Your task to perform on an android device: install app "Walmart Shopping & Grocery" Image 0: 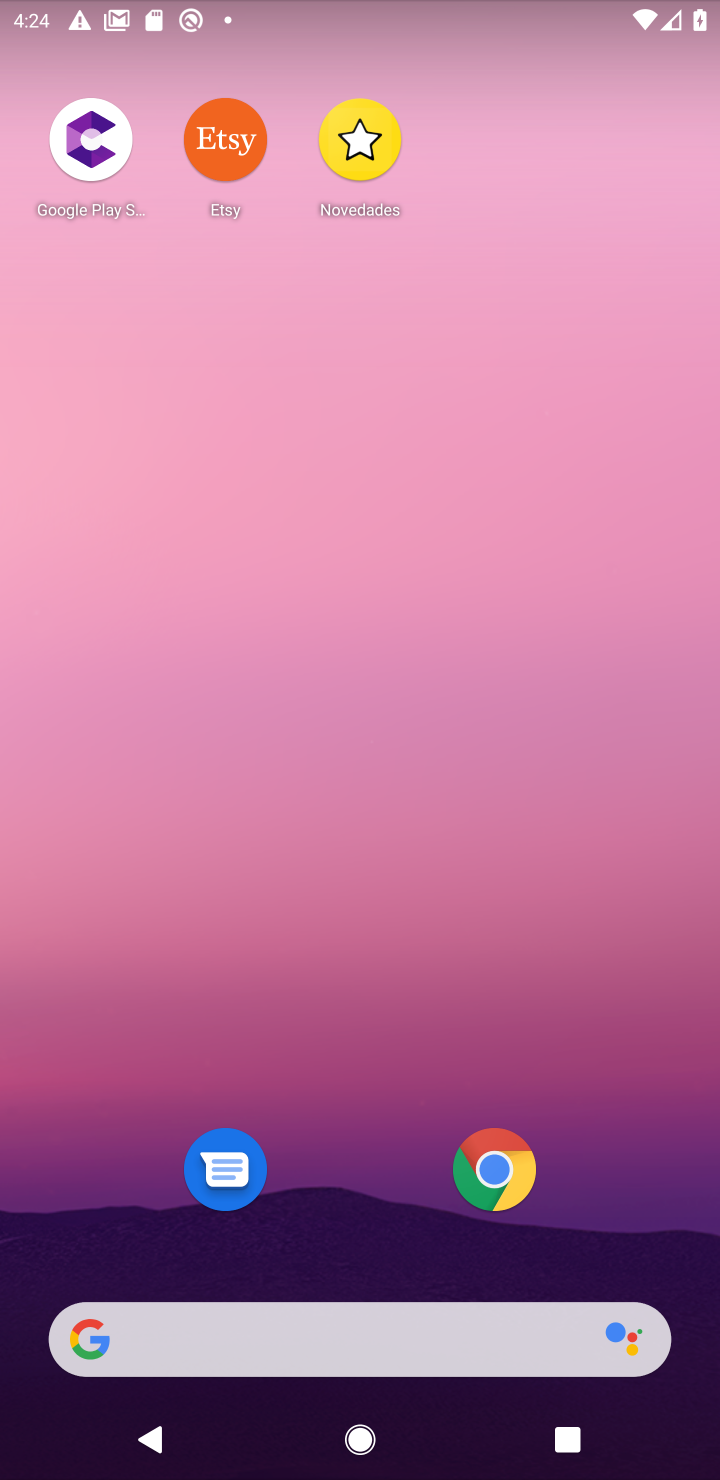
Step 0: press home button
Your task to perform on an android device: install app "Walmart Shopping & Grocery" Image 1: 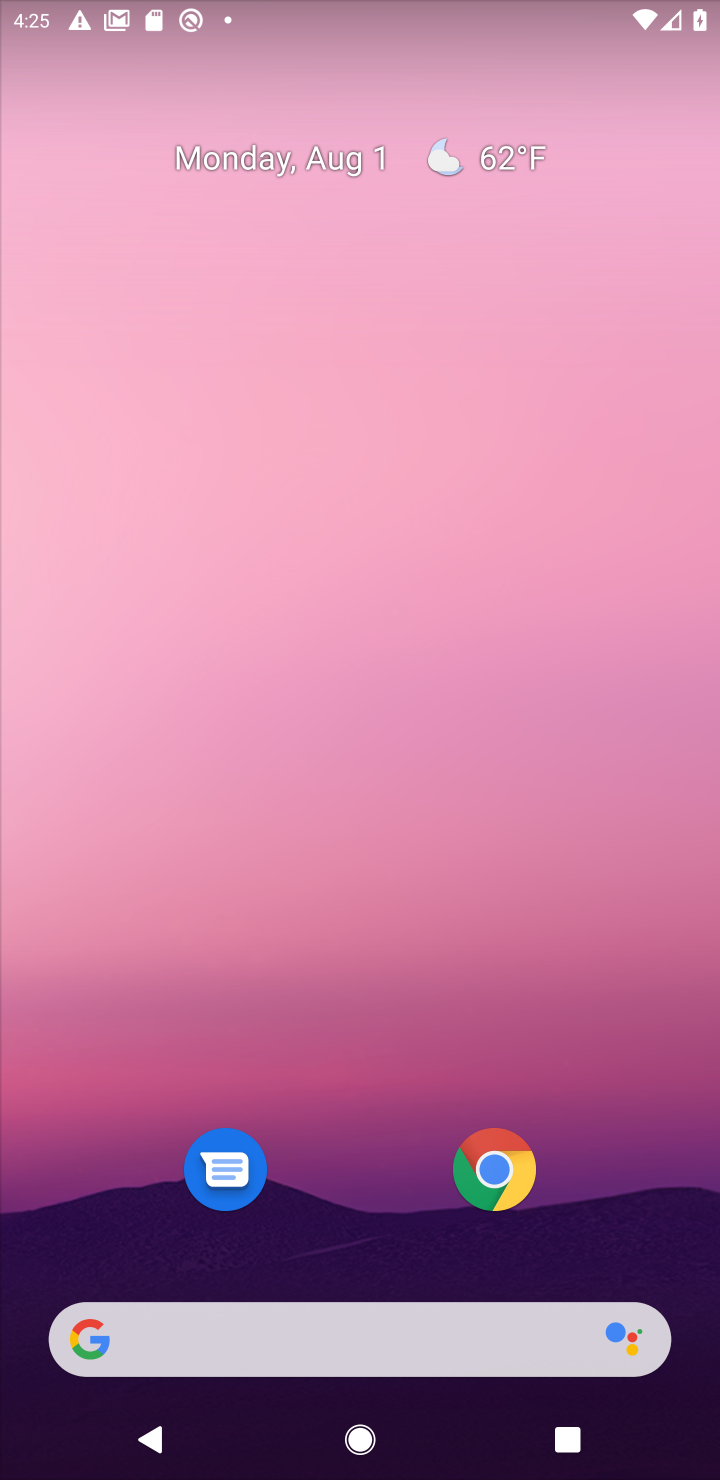
Step 1: drag from (626, 1157) to (409, 8)
Your task to perform on an android device: install app "Walmart Shopping & Grocery" Image 2: 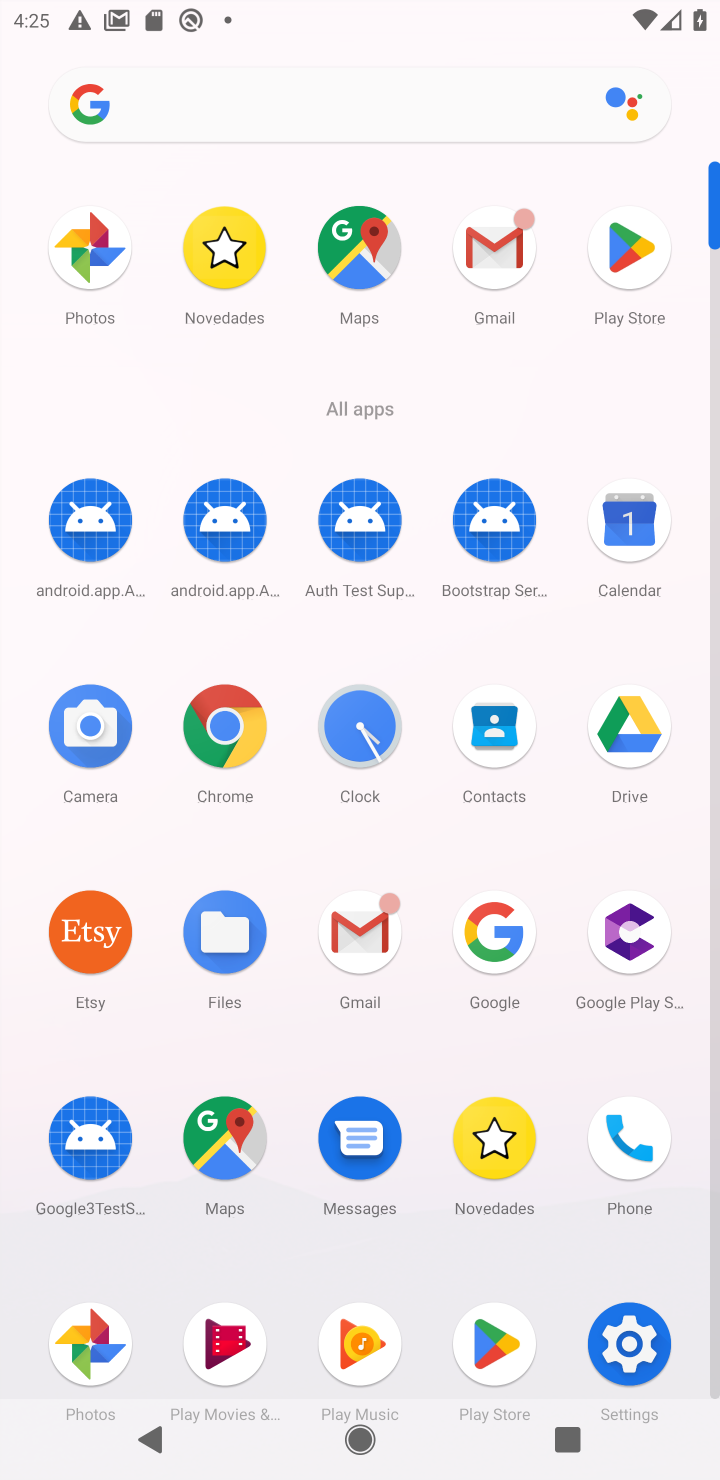
Step 2: click (611, 272)
Your task to perform on an android device: install app "Walmart Shopping & Grocery" Image 3: 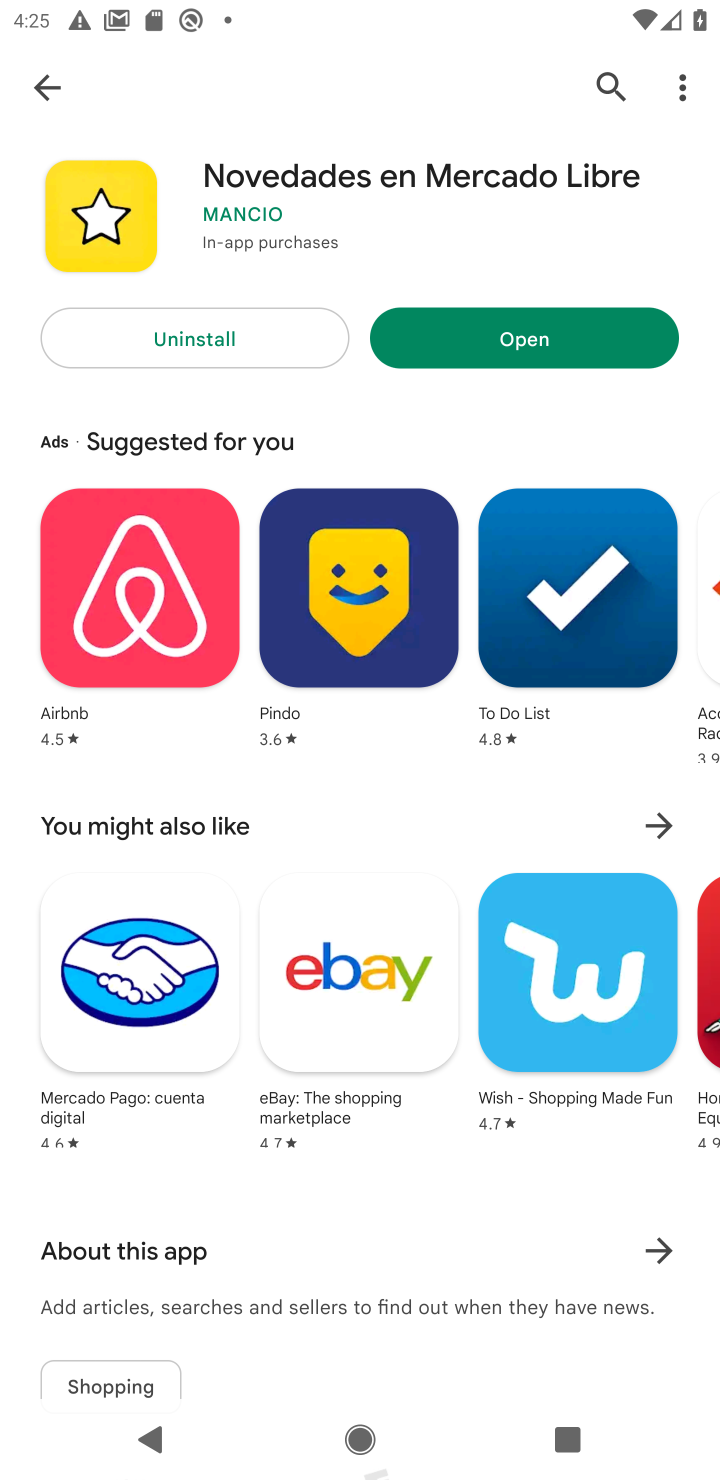
Step 3: click (592, 75)
Your task to perform on an android device: install app "Walmart Shopping & Grocery" Image 4: 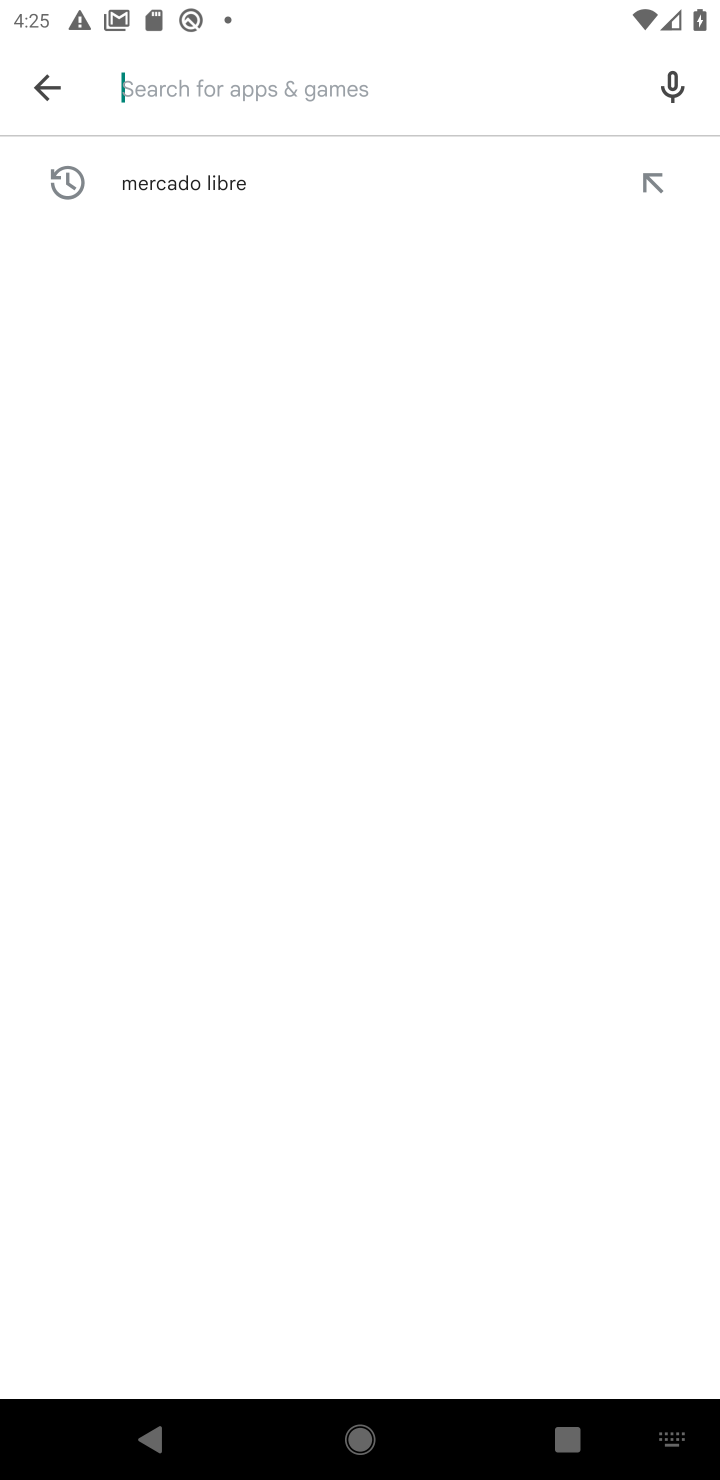
Step 4: type "walmart shopping & grocery"
Your task to perform on an android device: install app "Walmart Shopping & Grocery" Image 5: 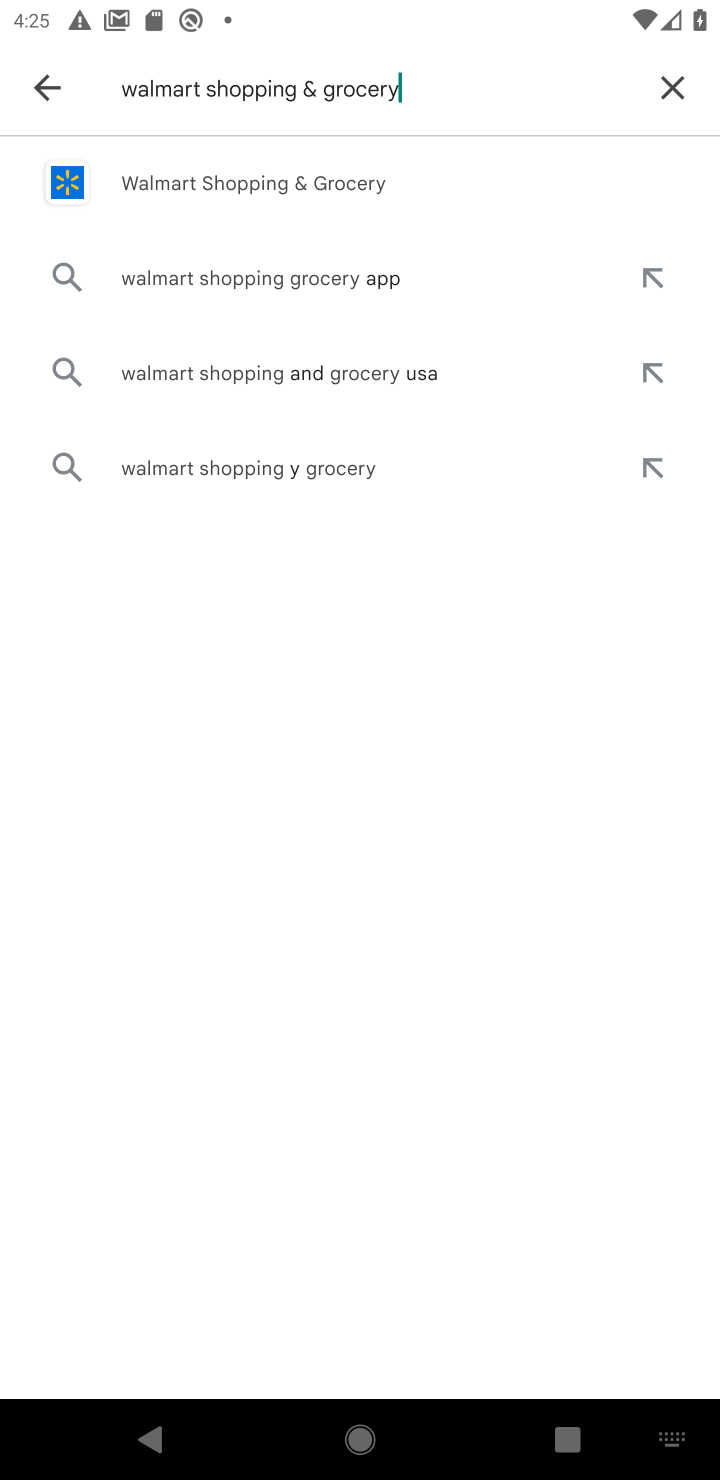
Step 5: click (294, 177)
Your task to perform on an android device: install app "Walmart Shopping & Grocery" Image 6: 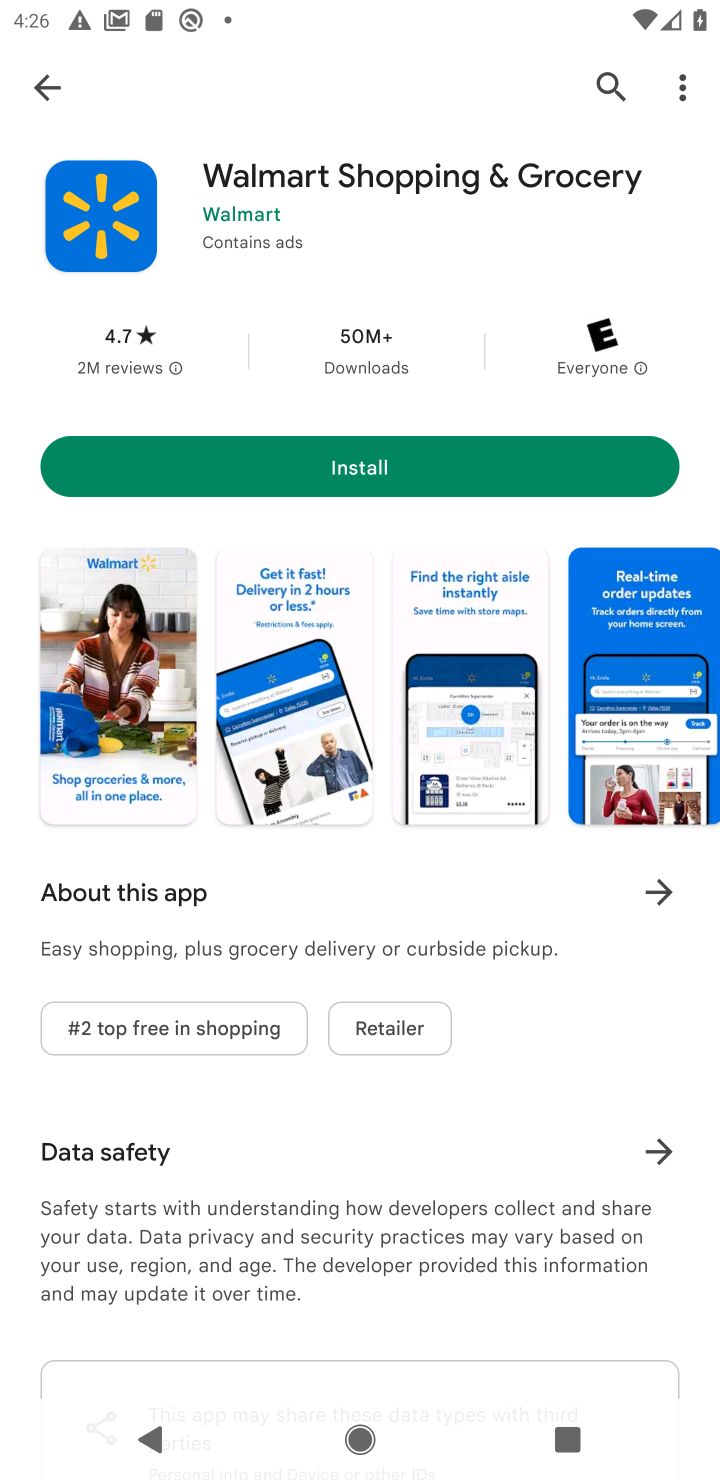
Step 6: click (516, 450)
Your task to perform on an android device: install app "Walmart Shopping & Grocery" Image 7: 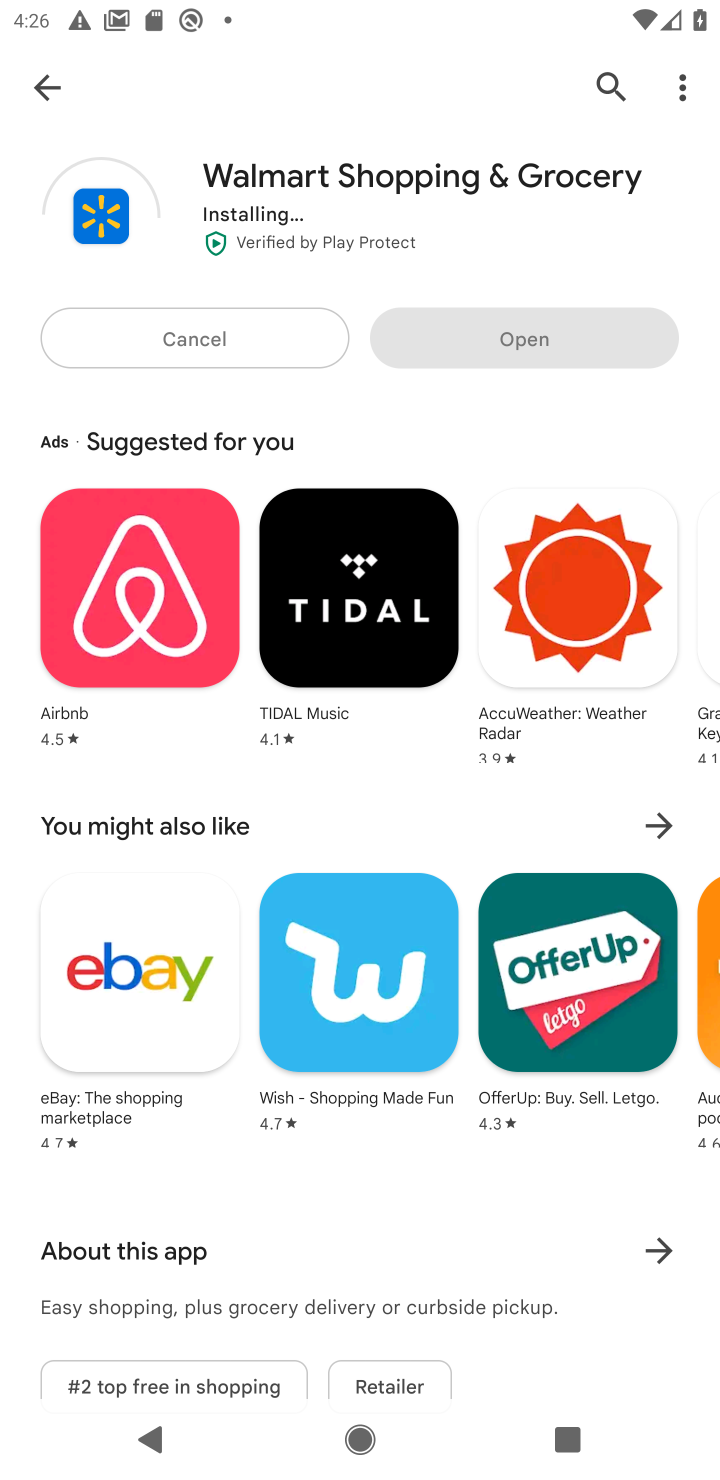
Step 7: click (516, 450)
Your task to perform on an android device: install app "Walmart Shopping & Grocery" Image 8: 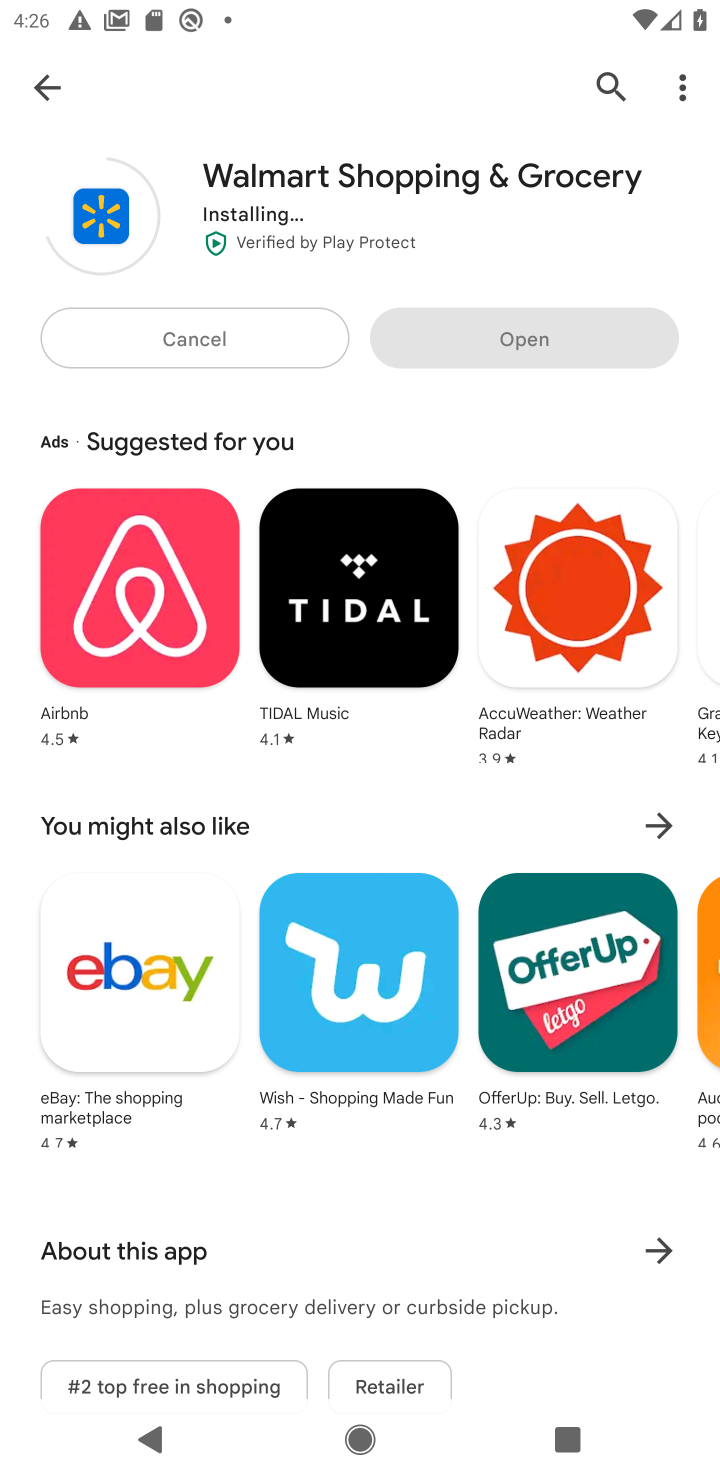
Step 8: click (649, 450)
Your task to perform on an android device: install app "Walmart Shopping & Grocery" Image 9: 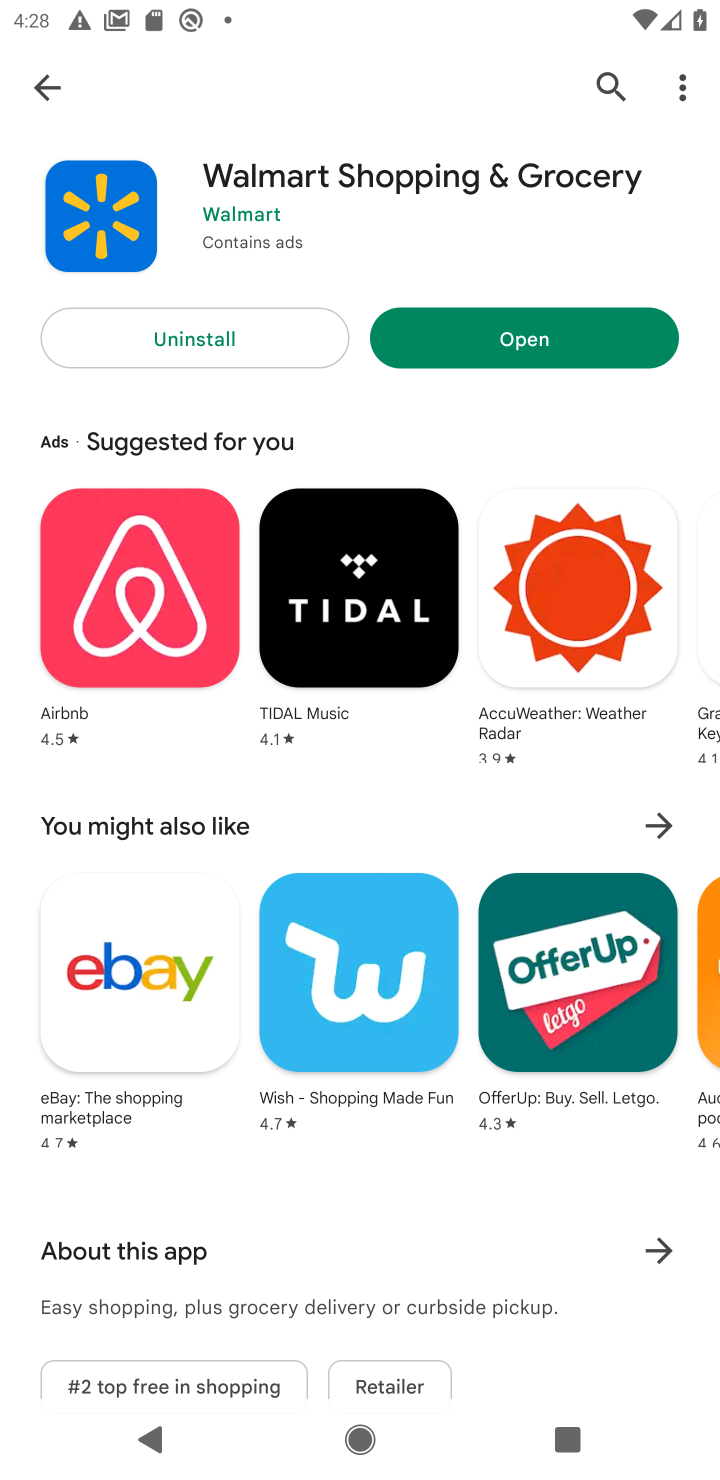
Step 9: task complete